Your task to perform on an android device: visit the assistant section in the google photos Image 0: 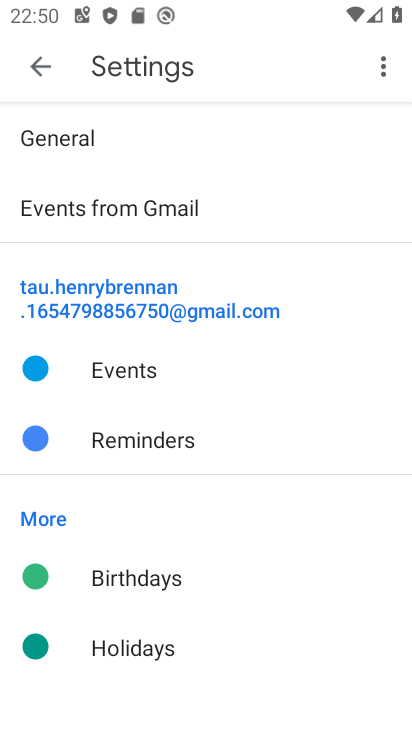
Step 0: press home button
Your task to perform on an android device: visit the assistant section in the google photos Image 1: 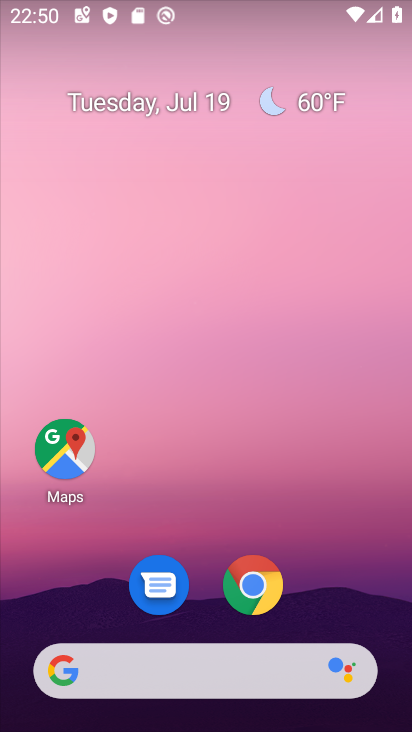
Step 1: drag from (334, 605) to (283, 52)
Your task to perform on an android device: visit the assistant section in the google photos Image 2: 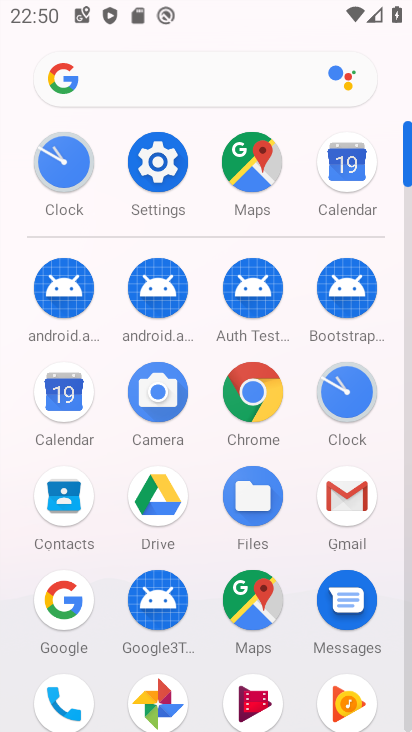
Step 2: click (169, 684)
Your task to perform on an android device: visit the assistant section in the google photos Image 3: 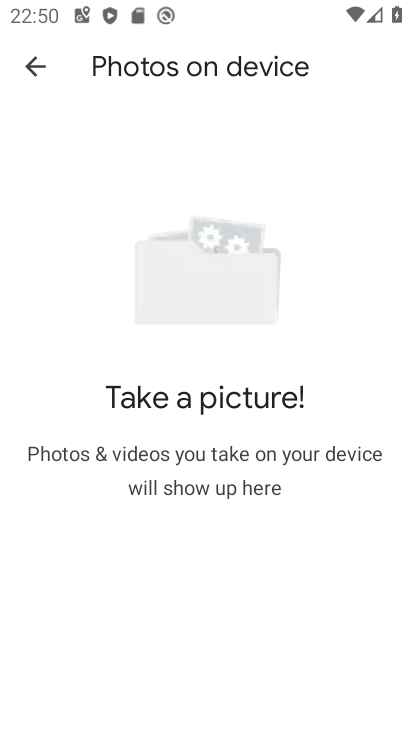
Step 3: click (30, 70)
Your task to perform on an android device: visit the assistant section in the google photos Image 4: 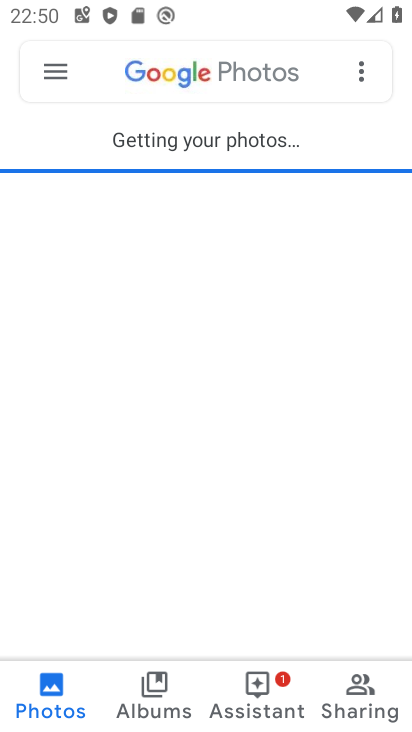
Step 4: click (257, 688)
Your task to perform on an android device: visit the assistant section in the google photos Image 5: 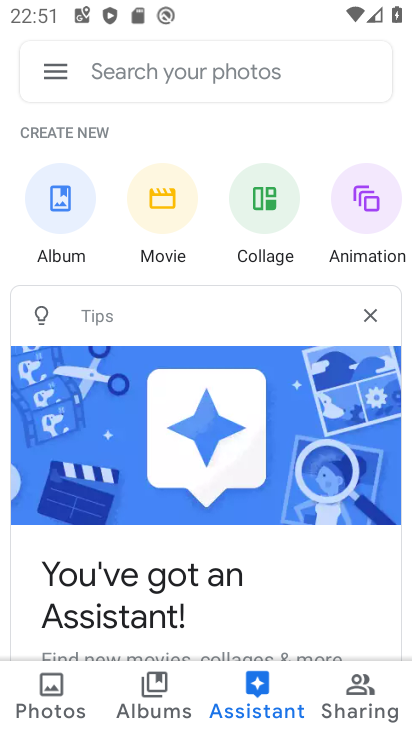
Step 5: task complete